Your task to perform on an android device: Search for seafood restaurants on Google Maps Image 0: 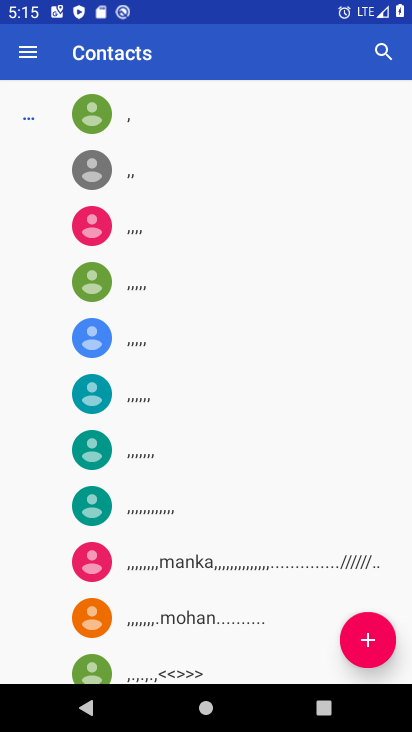
Step 0: click (241, 628)
Your task to perform on an android device: Search for seafood restaurants on Google Maps Image 1: 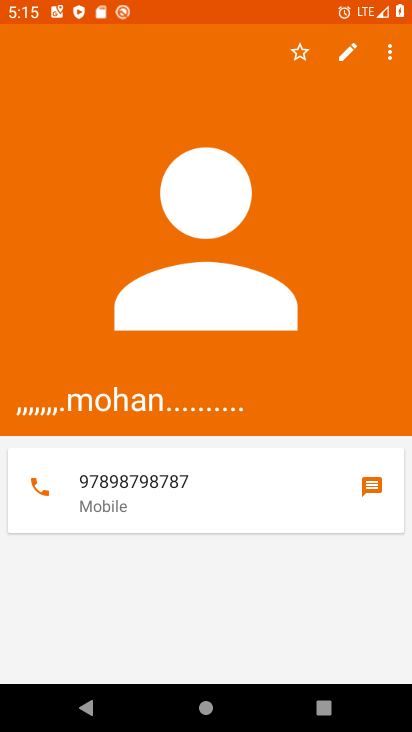
Step 1: press home button
Your task to perform on an android device: Search for seafood restaurants on Google Maps Image 2: 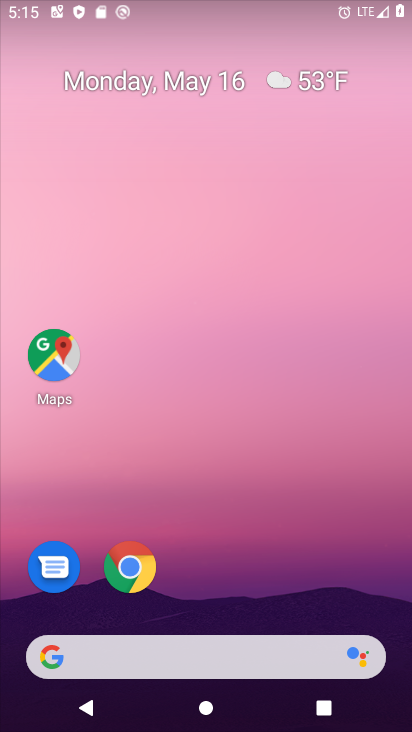
Step 2: drag from (315, 636) to (316, 210)
Your task to perform on an android device: Search for seafood restaurants on Google Maps Image 3: 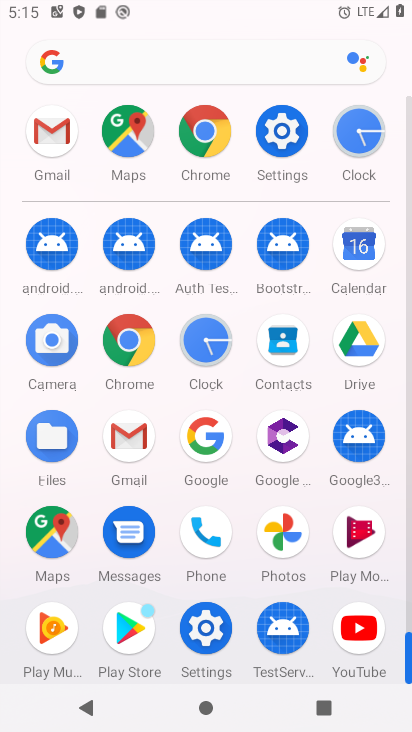
Step 3: click (52, 535)
Your task to perform on an android device: Search for seafood restaurants on Google Maps Image 4: 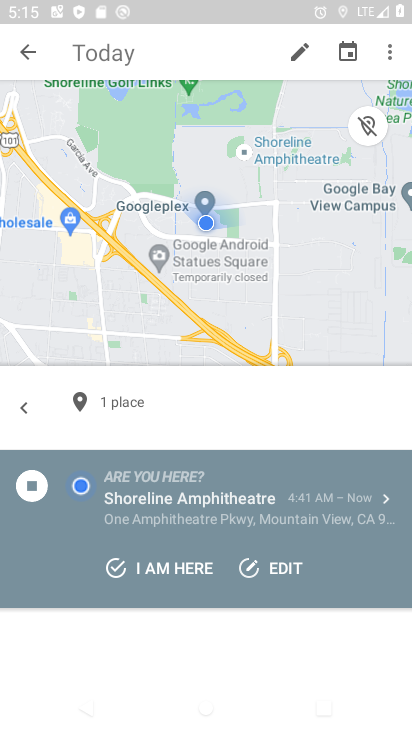
Step 4: press back button
Your task to perform on an android device: Search for seafood restaurants on Google Maps Image 5: 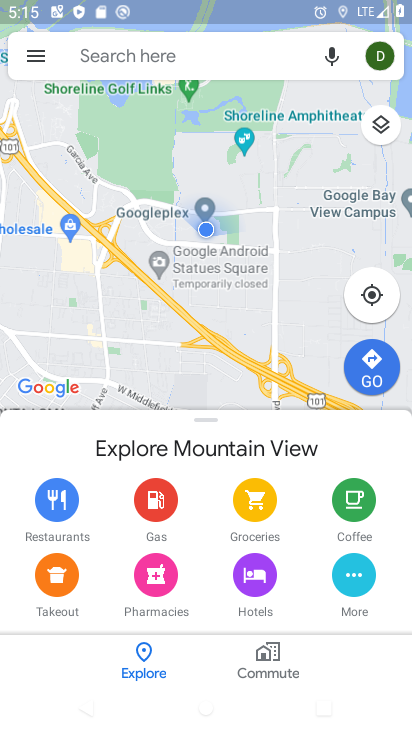
Step 5: click (282, 55)
Your task to perform on an android device: Search for seafood restaurants on Google Maps Image 6: 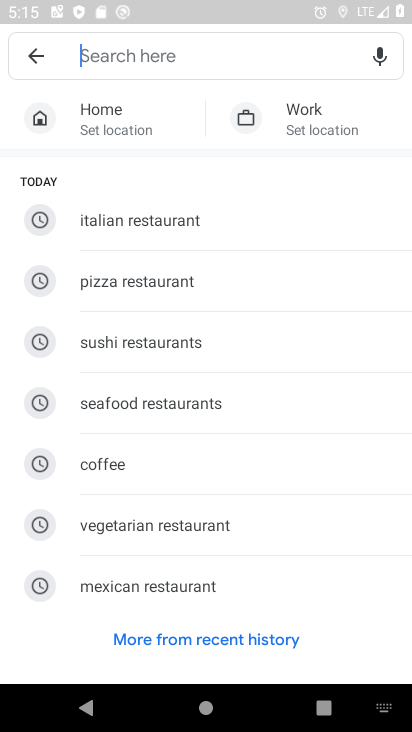
Step 6: click (165, 421)
Your task to perform on an android device: Search for seafood restaurants on Google Maps Image 7: 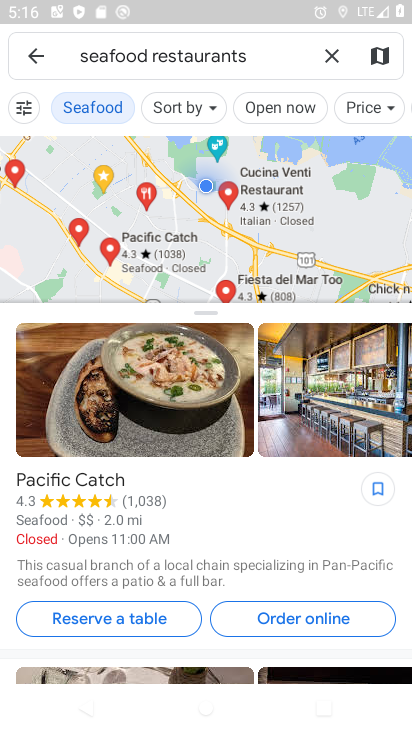
Step 7: task complete